Your task to perform on an android device: Open Google Image 0: 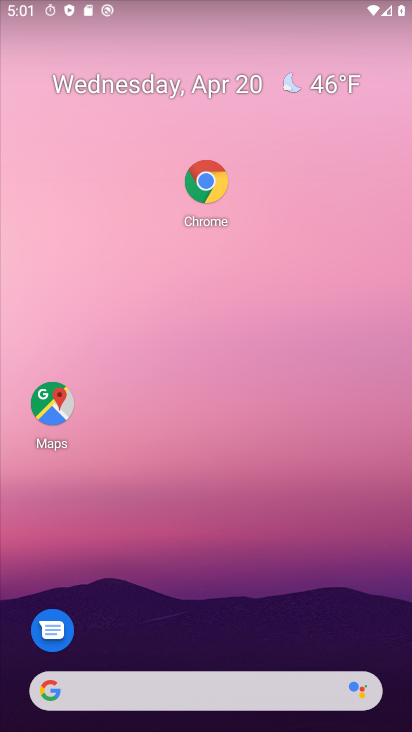
Step 0: click (269, 217)
Your task to perform on an android device: Open Google Image 1: 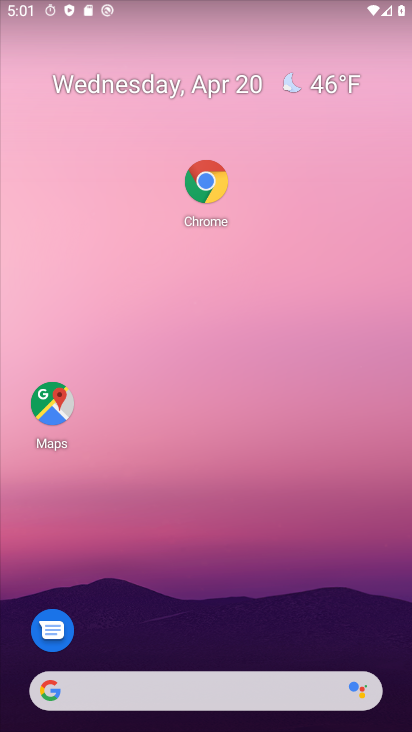
Step 1: drag from (250, 558) to (303, 206)
Your task to perform on an android device: Open Google Image 2: 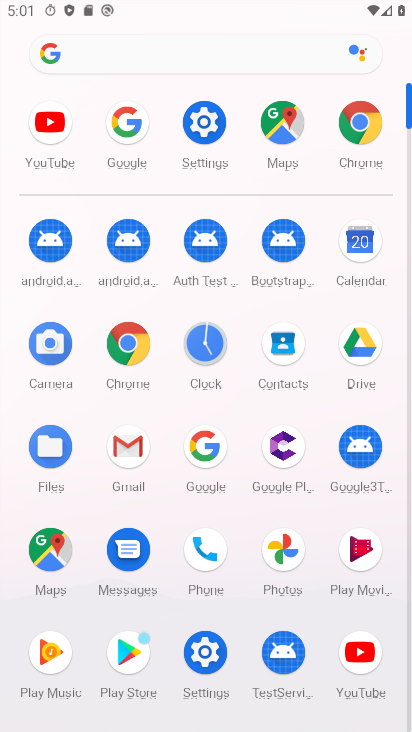
Step 2: click (128, 120)
Your task to perform on an android device: Open Google Image 3: 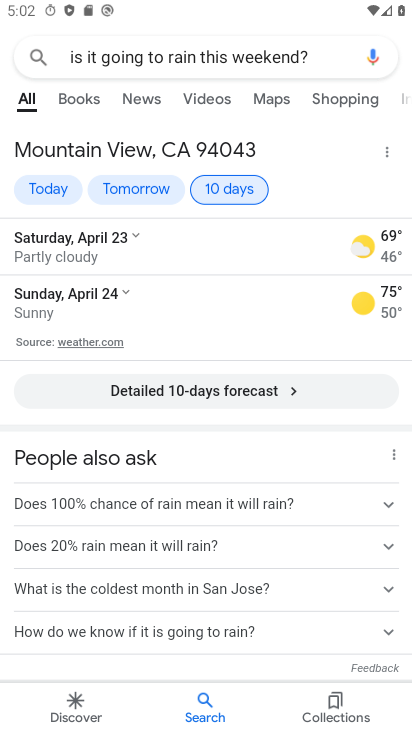
Step 3: task complete